Your task to perform on an android device: turn on improve location accuracy Image 0: 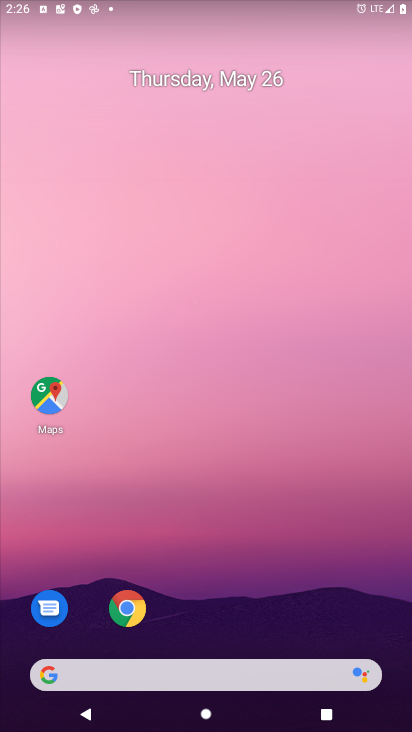
Step 0: drag from (374, 633) to (352, 157)
Your task to perform on an android device: turn on improve location accuracy Image 1: 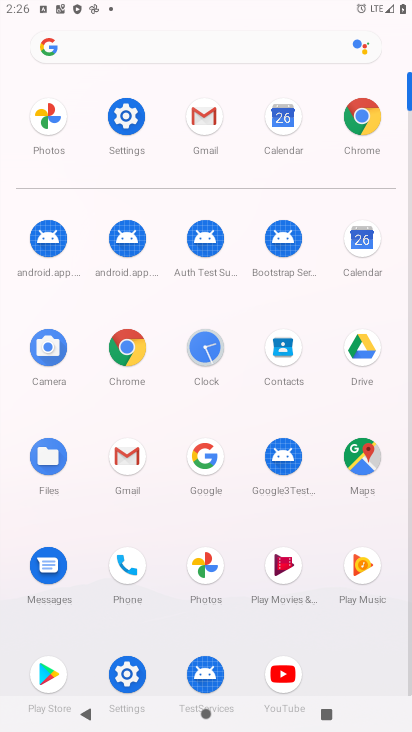
Step 1: click (126, 673)
Your task to perform on an android device: turn on improve location accuracy Image 2: 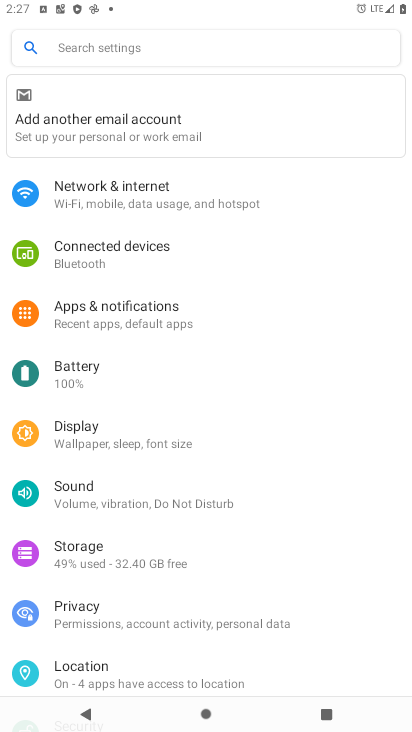
Step 2: click (106, 660)
Your task to perform on an android device: turn on improve location accuracy Image 3: 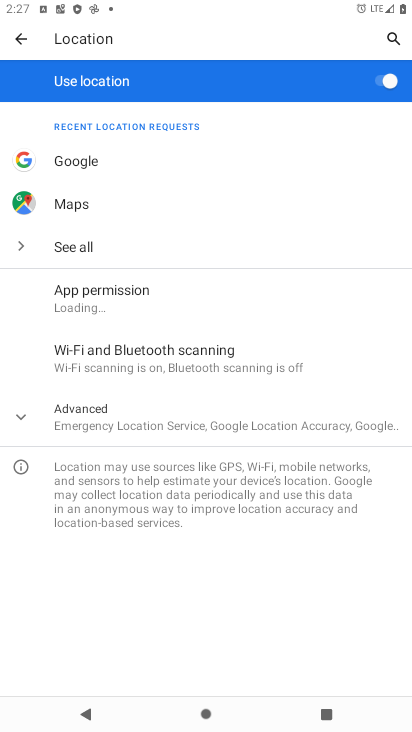
Step 3: click (45, 419)
Your task to perform on an android device: turn on improve location accuracy Image 4: 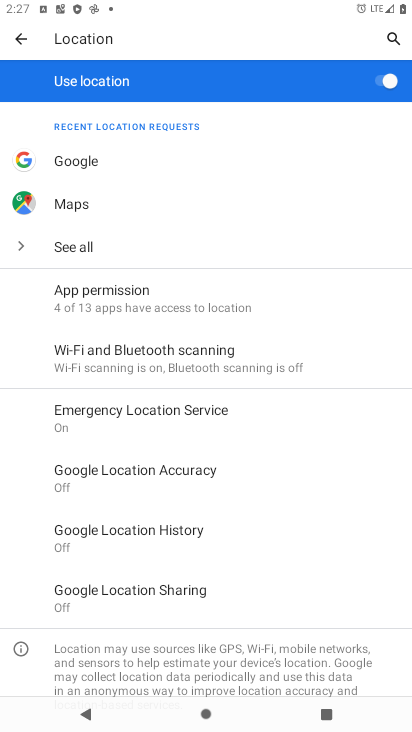
Step 4: click (110, 471)
Your task to perform on an android device: turn on improve location accuracy Image 5: 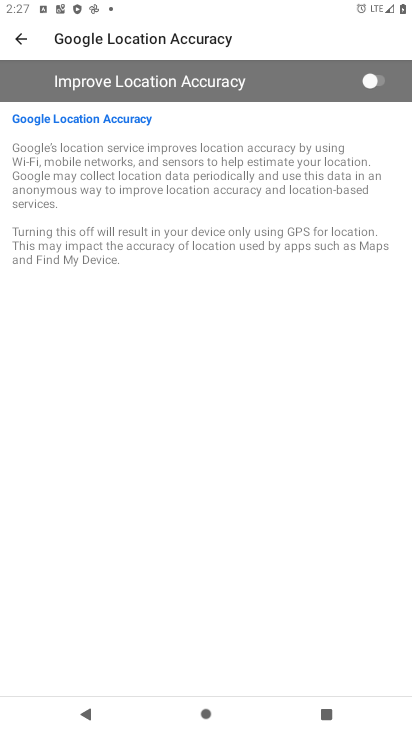
Step 5: click (378, 78)
Your task to perform on an android device: turn on improve location accuracy Image 6: 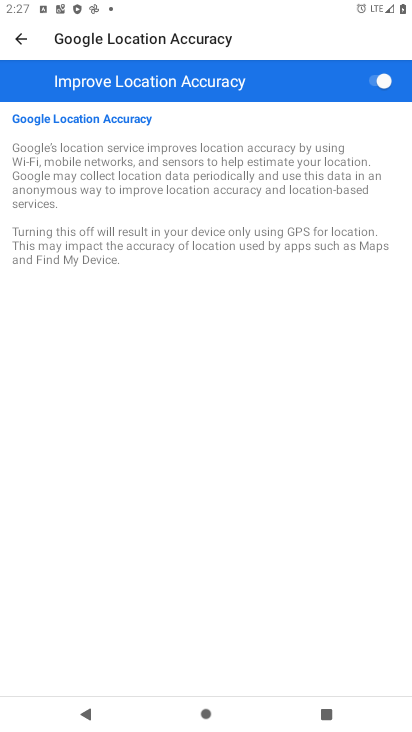
Step 6: task complete